Your task to perform on an android device: Open privacy settings Image 0: 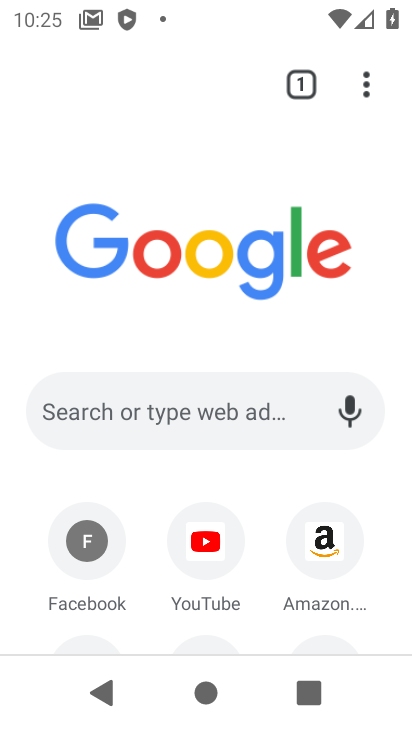
Step 0: press home button
Your task to perform on an android device: Open privacy settings Image 1: 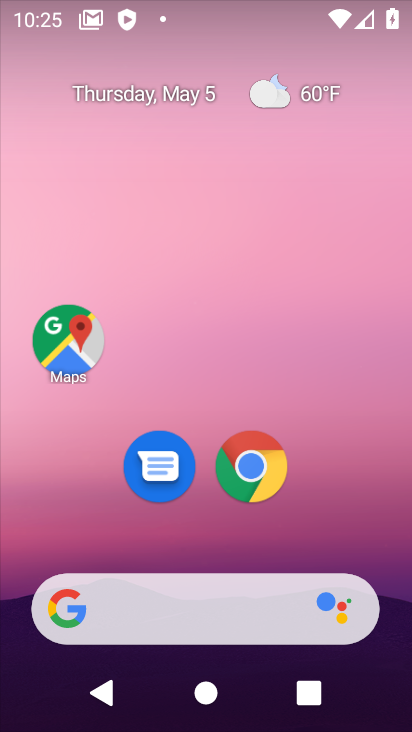
Step 1: drag from (168, 565) to (187, 230)
Your task to perform on an android device: Open privacy settings Image 2: 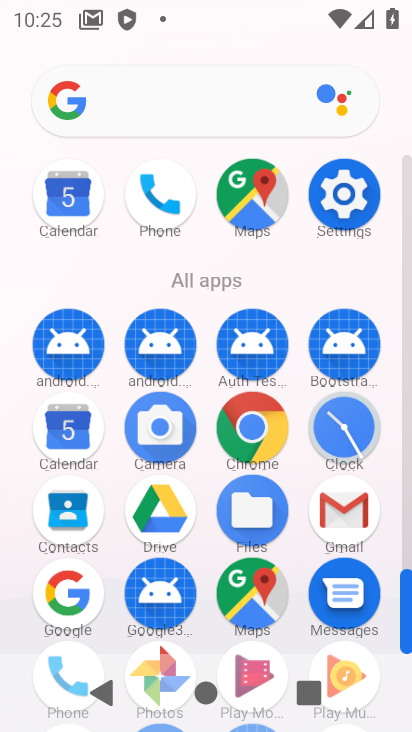
Step 2: click (345, 196)
Your task to perform on an android device: Open privacy settings Image 3: 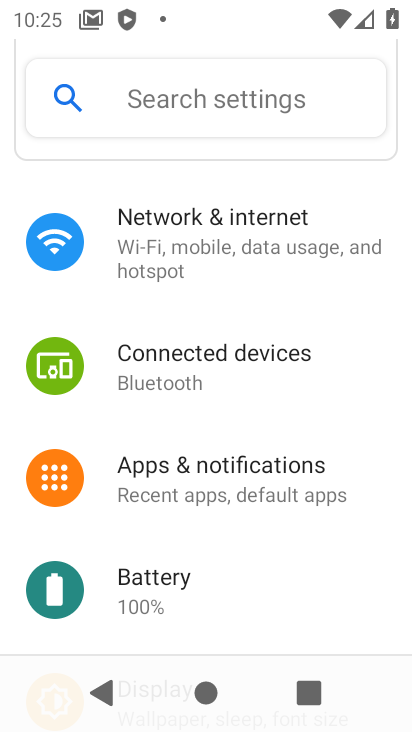
Step 3: drag from (214, 598) to (258, 199)
Your task to perform on an android device: Open privacy settings Image 4: 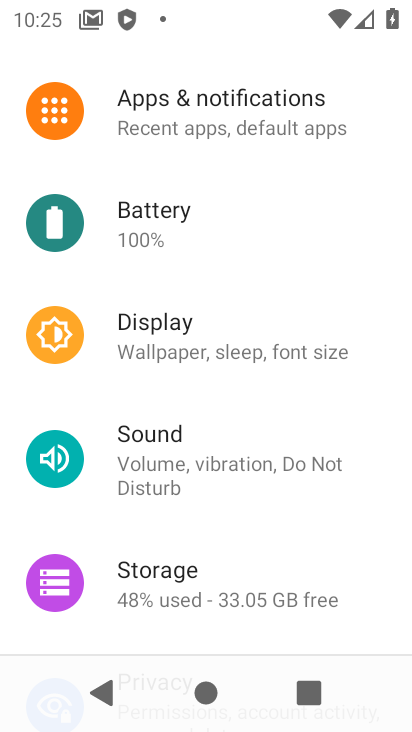
Step 4: drag from (219, 567) to (284, 240)
Your task to perform on an android device: Open privacy settings Image 5: 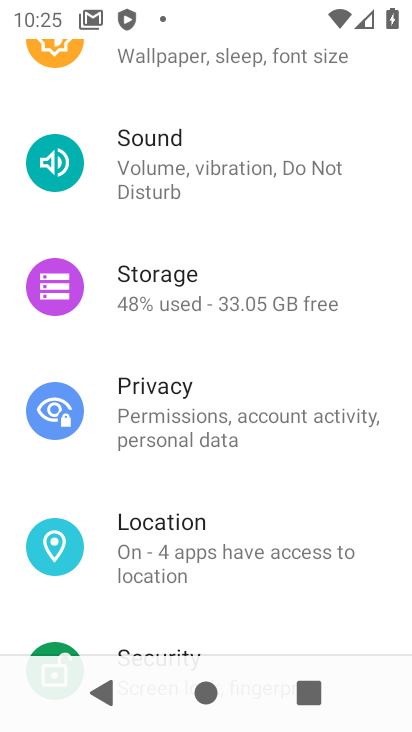
Step 5: click (187, 421)
Your task to perform on an android device: Open privacy settings Image 6: 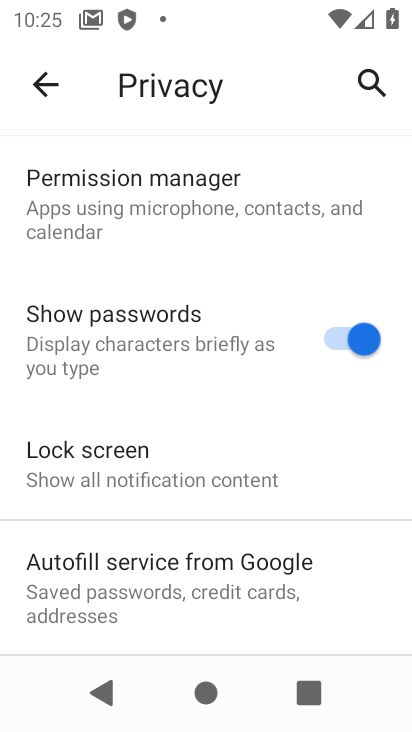
Step 6: drag from (182, 620) to (180, 213)
Your task to perform on an android device: Open privacy settings Image 7: 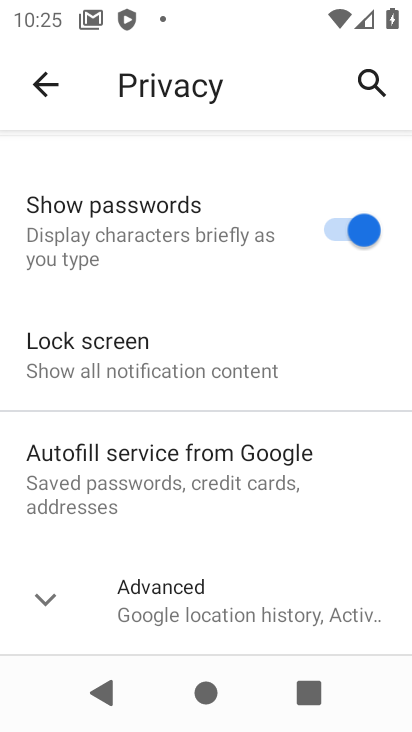
Step 7: click (161, 598)
Your task to perform on an android device: Open privacy settings Image 8: 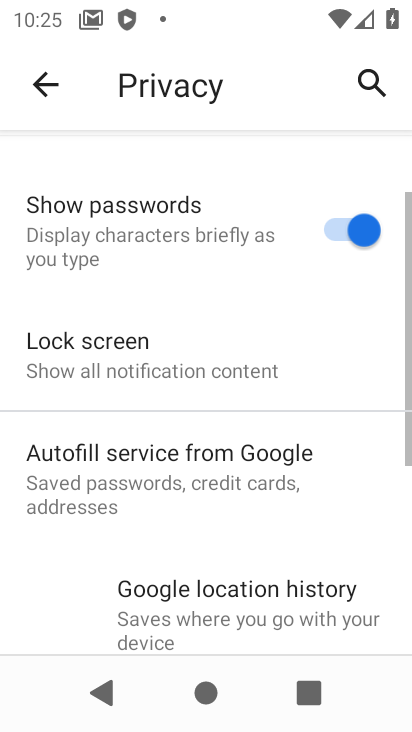
Step 8: task complete